Your task to perform on an android device: open the mobile data screen to see how much data has been used Image 0: 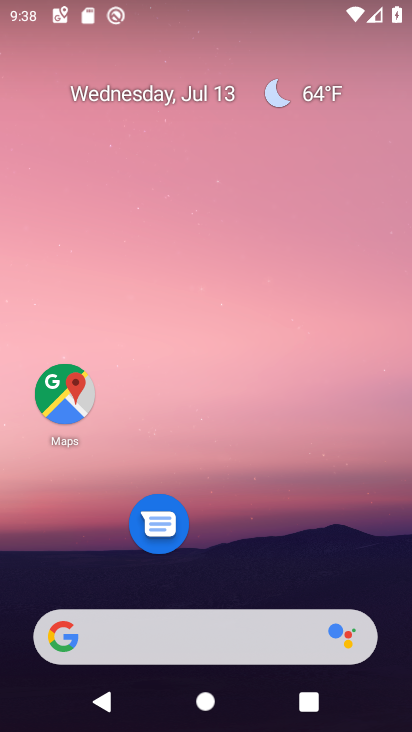
Step 0: drag from (239, 538) to (239, 128)
Your task to perform on an android device: open the mobile data screen to see how much data has been used Image 1: 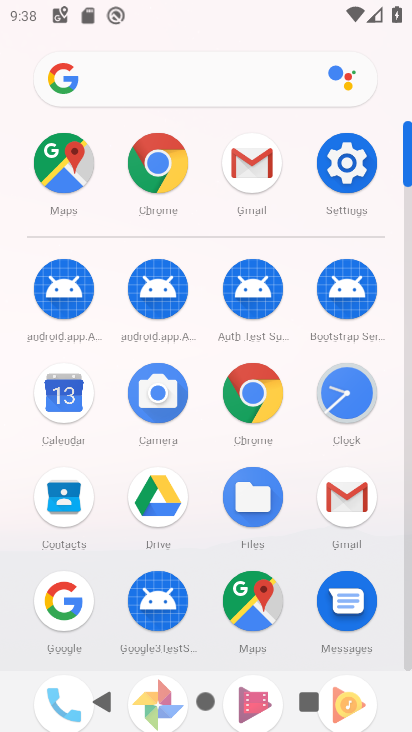
Step 1: click (328, 162)
Your task to perform on an android device: open the mobile data screen to see how much data has been used Image 2: 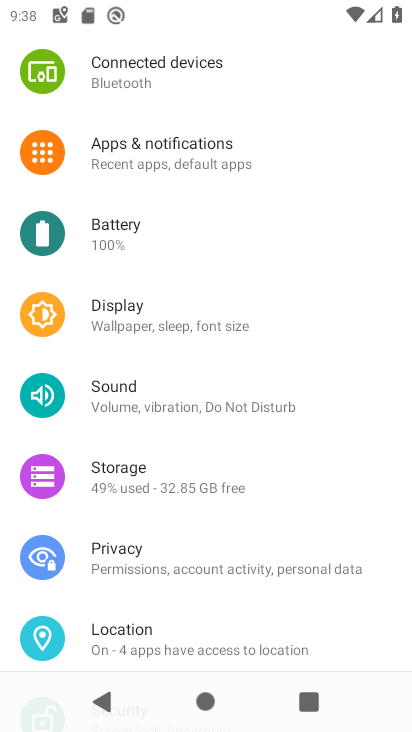
Step 2: drag from (171, 118) to (140, 531)
Your task to perform on an android device: open the mobile data screen to see how much data has been used Image 3: 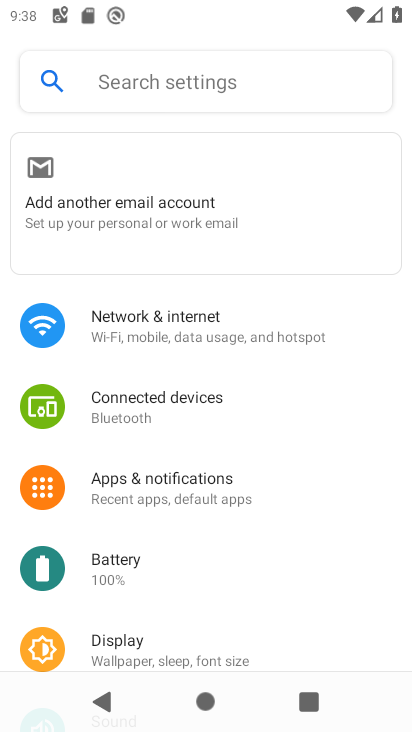
Step 3: click (140, 314)
Your task to perform on an android device: open the mobile data screen to see how much data has been used Image 4: 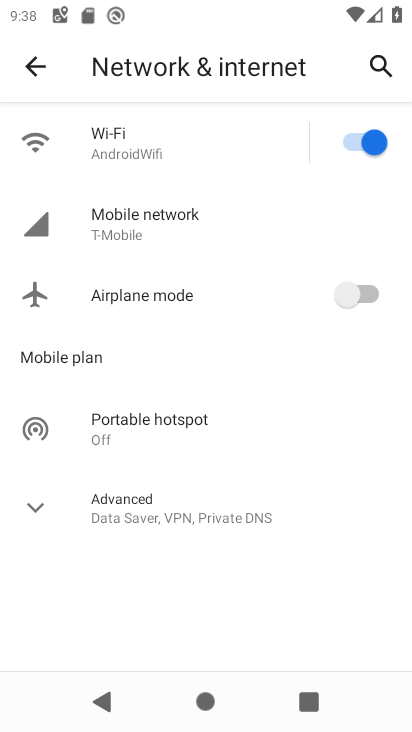
Step 4: click (179, 216)
Your task to perform on an android device: open the mobile data screen to see how much data has been used Image 5: 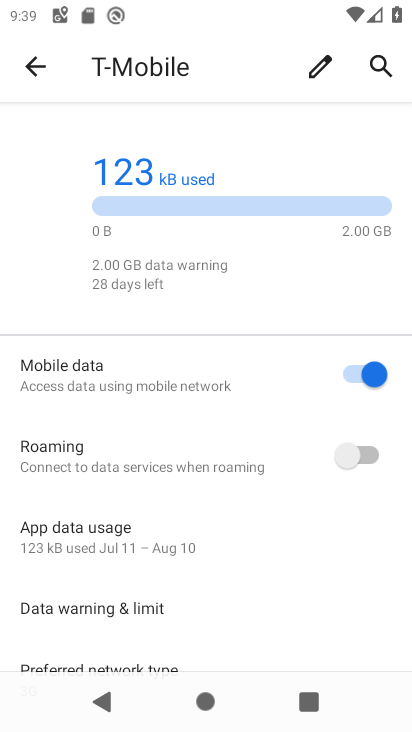
Step 5: task complete